Your task to perform on an android device: Open privacy settings Image 0: 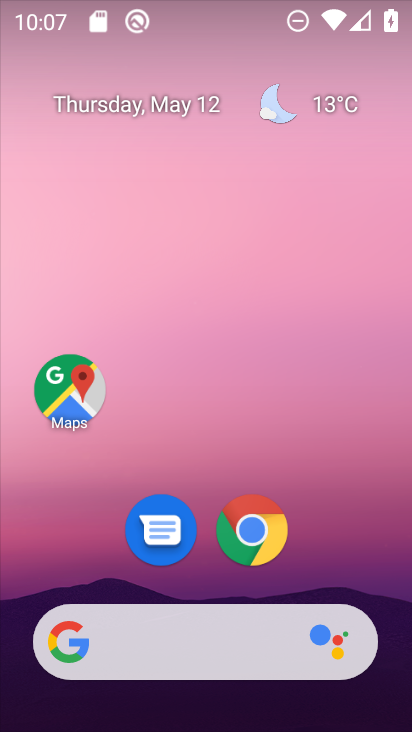
Step 0: drag from (306, 496) to (381, 0)
Your task to perform on an android device: Open privacy settings Image 1: 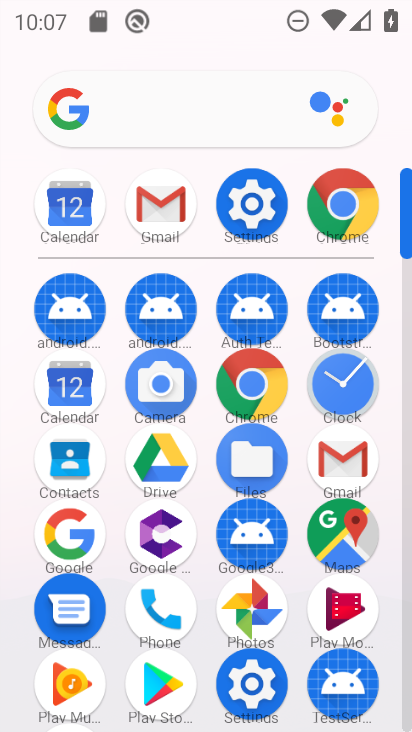
Step 1: click (266, 203)
Your task to perform on an android device: Open privacy settings Image 2: 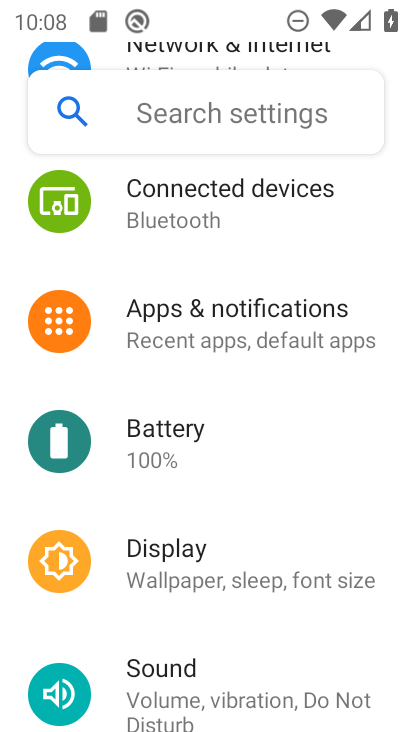
Step 2: task complete